Your task to perform on an android device: search for starred emails in the gmail app Image 0: 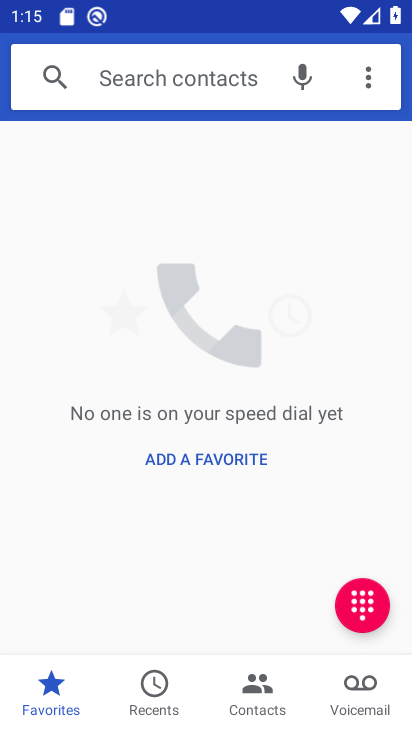
Step 0: press home button
Your task to perform on an android device: search for starred emails in the gmail app Image 1: 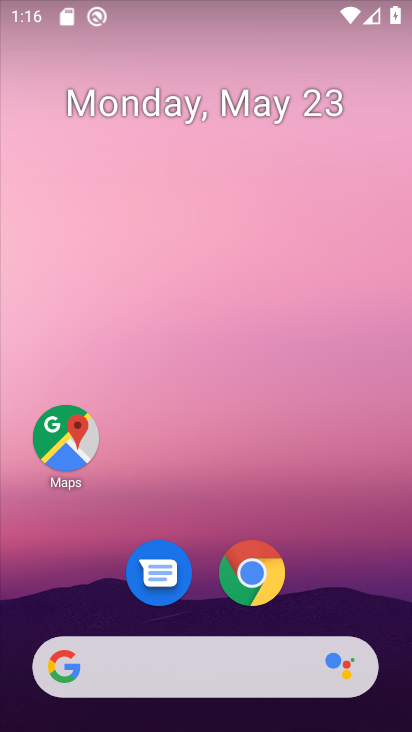
Step 1: drag from (316, 578) to (239, 55)
Your task to perform on an android device: search for starred emails in the gmail app Image 2: 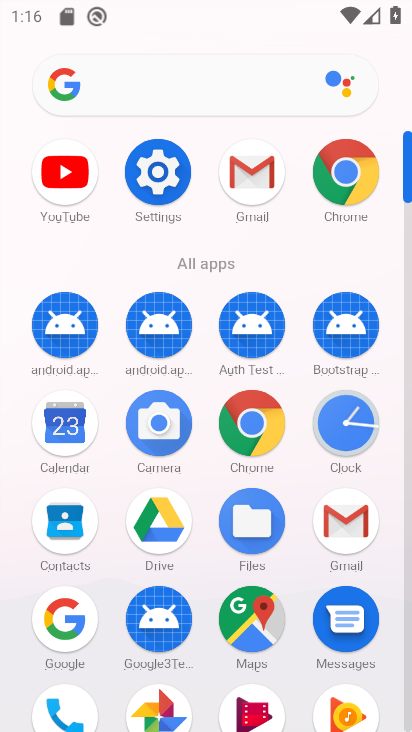
Step 2: click (353, 528)
Your task to perform on an android device: search for starred emails in the gmail app Image 3: 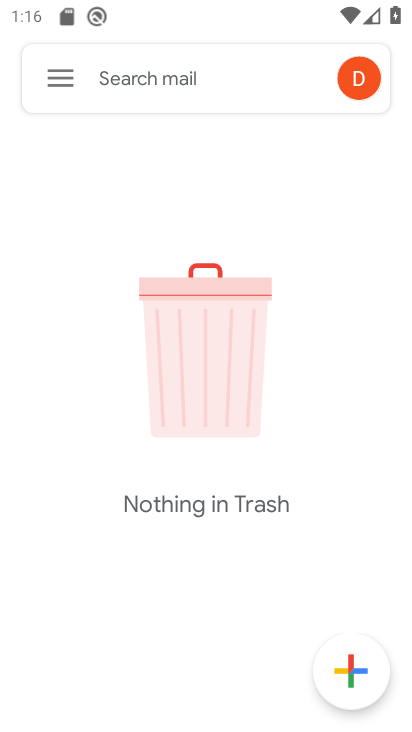
Step 3: click (59, 75)
Your task to perform on an android device: search for starred emails in the gmail app Image 4: 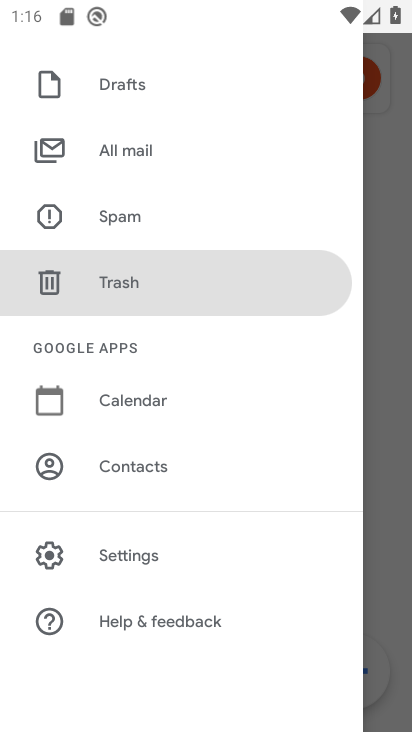
Step 4: click (140, 148)
Your task to perform on an android device: search for starred emails in the gmail app Image 5: 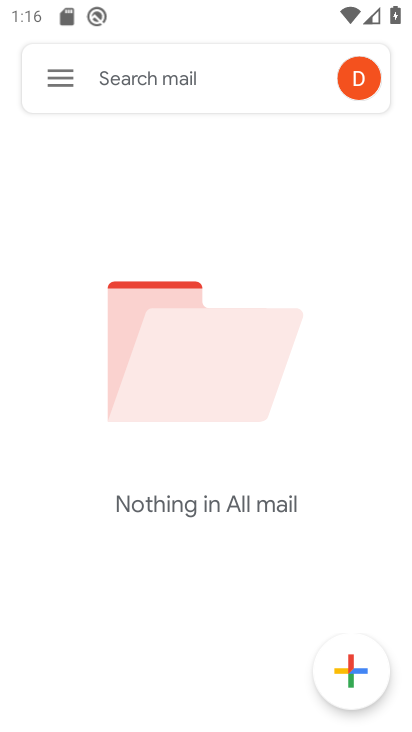
Step 5: click (62, 77)
Your task to perform on an android device: search for starred emails in the gmail app Image 6: 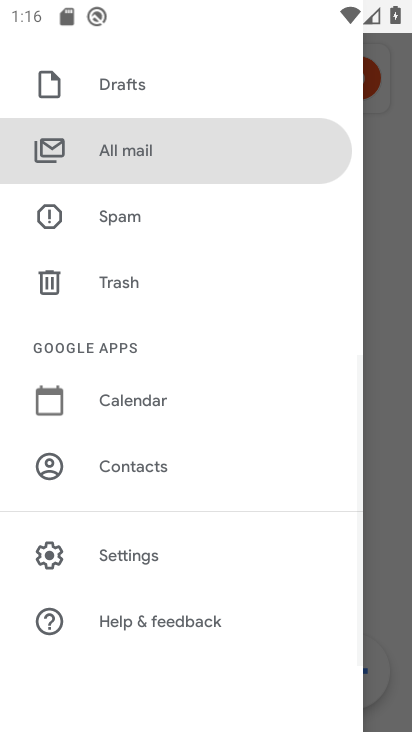
Step 6: drag from (175, 184) to (198, 596)
Your task to perform on an android device: search for starred emails in the gmail app Image 7: 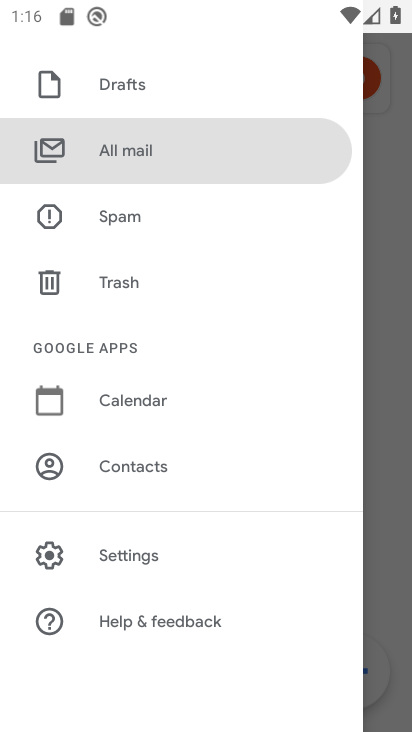
Step 7: drag from (226, 252) to (214, 613)
Your task to perform on an android device: search for starred emails in the gmail app Image 8: 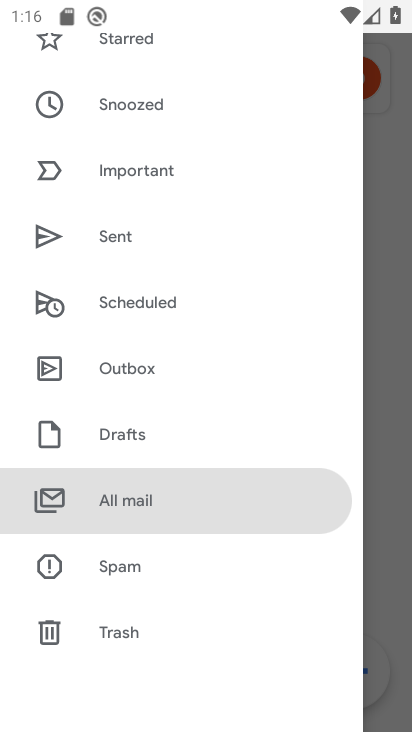
Step 8: drag from (192, 76) to (184, 439)
Your task to perform on an android device: search for starred emails in the gmail app Image 9: 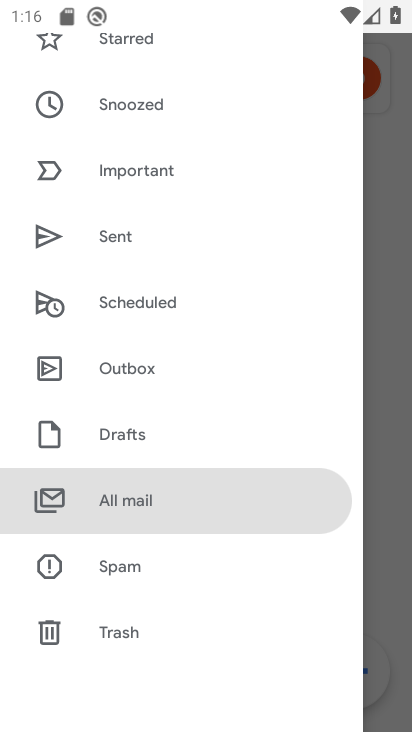
Step 9: drag from (220, 190) to (232, 587)
Your task to perform on an android device: search for starred emails in the gmail app Image 10: 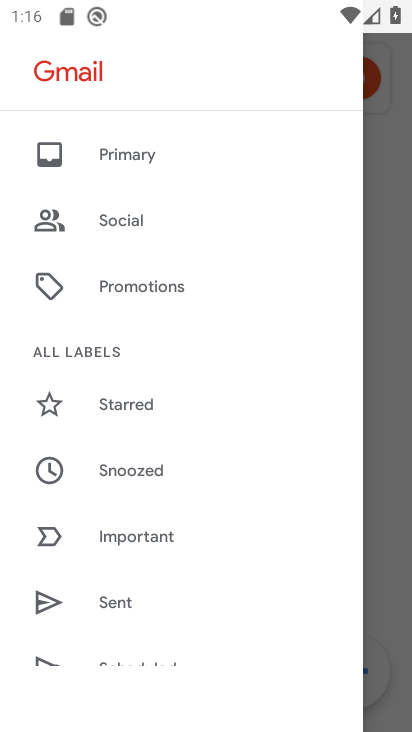
Step 10: click (136, 402)
Your task to perform on an android device: search for starred emails in the gmail app Image 11: 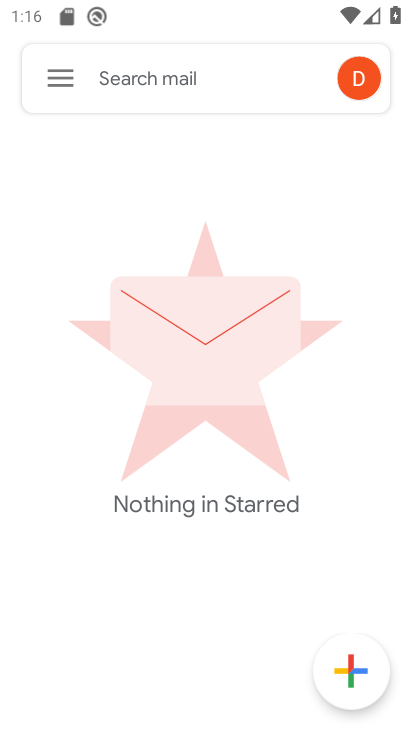
Step 11: task complete